Your task to perform on an android device: View the shopping cart on costco.com. Search for jbl charge 4 on costco.com, select the first entry, and add it to the cart. Image 0: 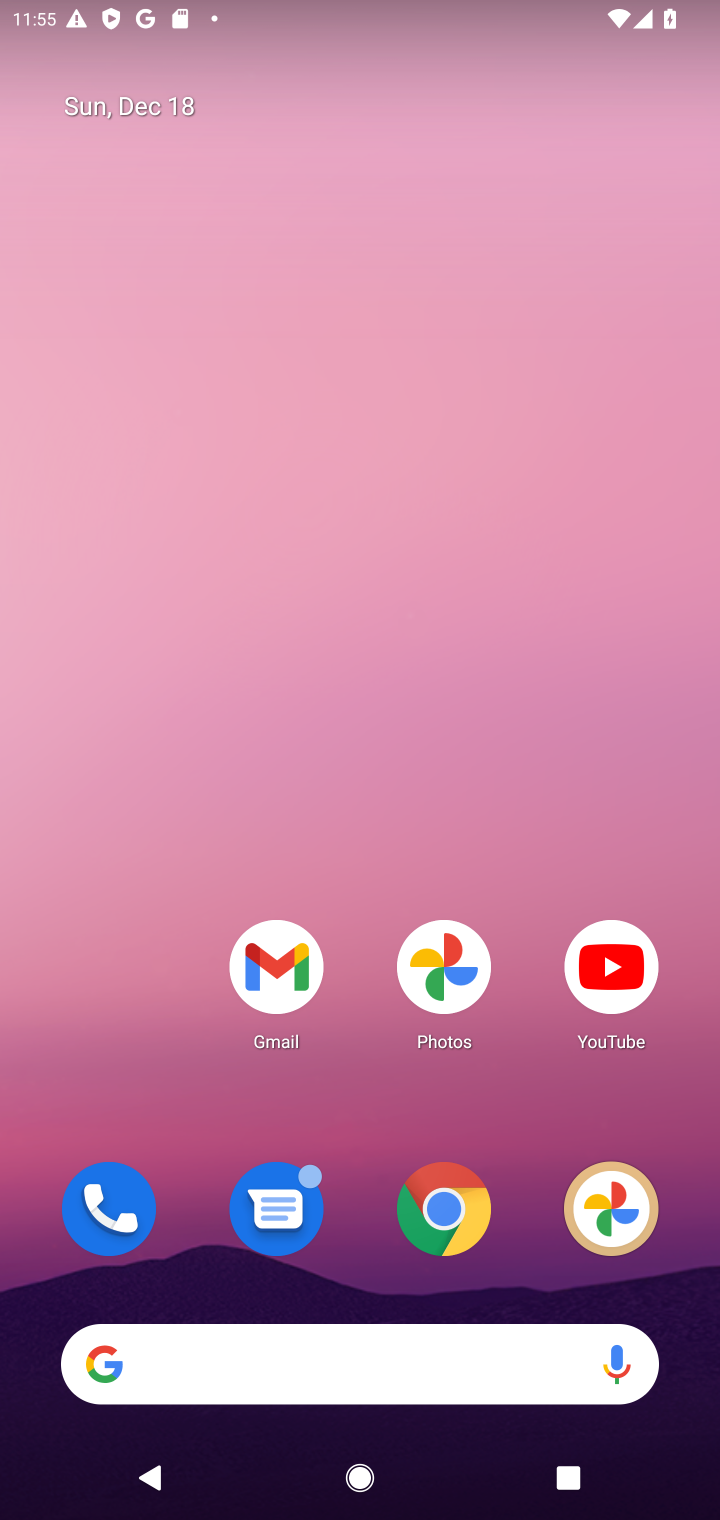
Step 0: click (432, 1193)
Your task to perform on an android device: View the shopping cart on costco.com. Search for jbl charge 4 on costco.com, select the first entry, and add it to the cart. Image 1: 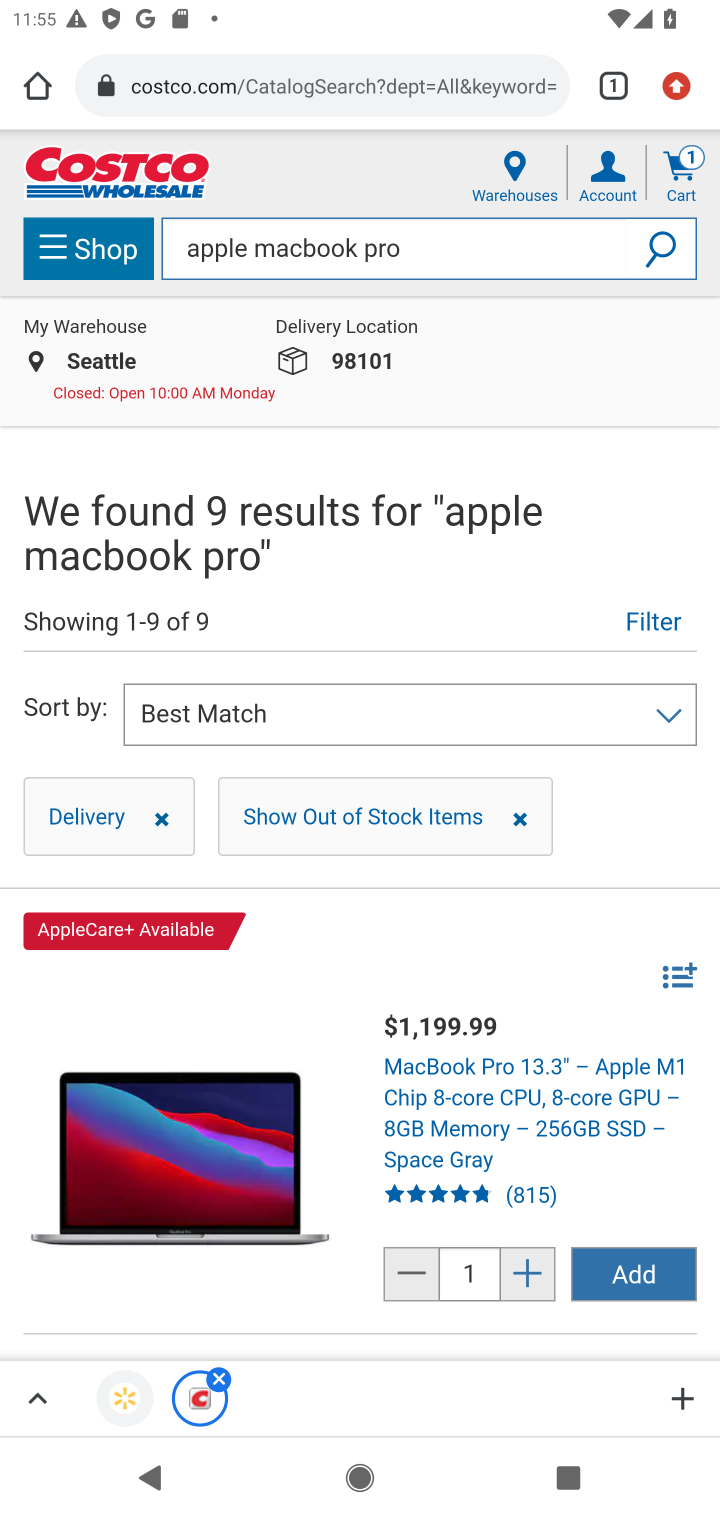
Step 1: click (164, 178)
Your task to perform on an android device: View the shopping cart on costco.com. Search for jbl charge 4 on costco.com, select the first entry, and add it to the cart. Image 2: 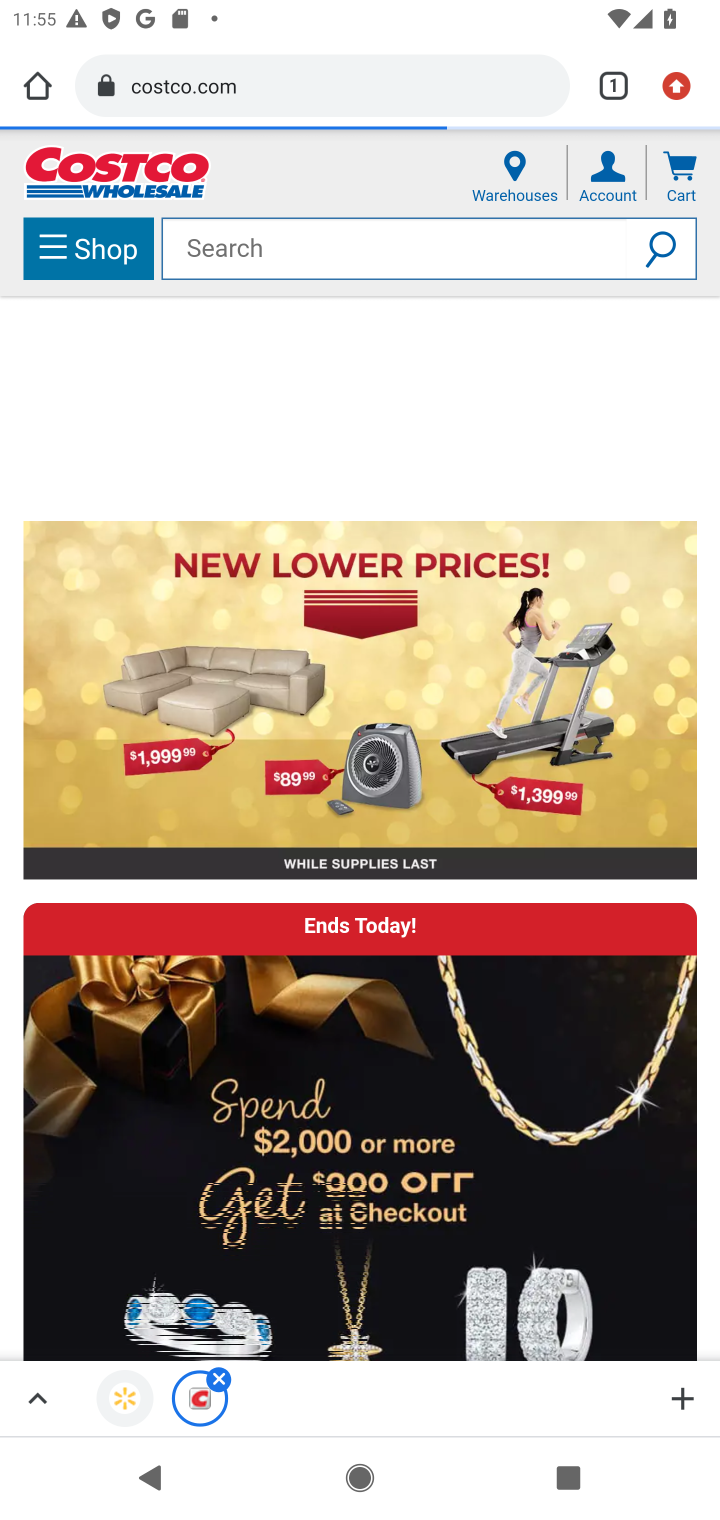
Step 2: click (456, 253)
Your task to perform on an android device: View the shopping cart on costco.com. Search for jbl charge 4 on costco.com, select the first entry, and add it to the cart. Image 3: 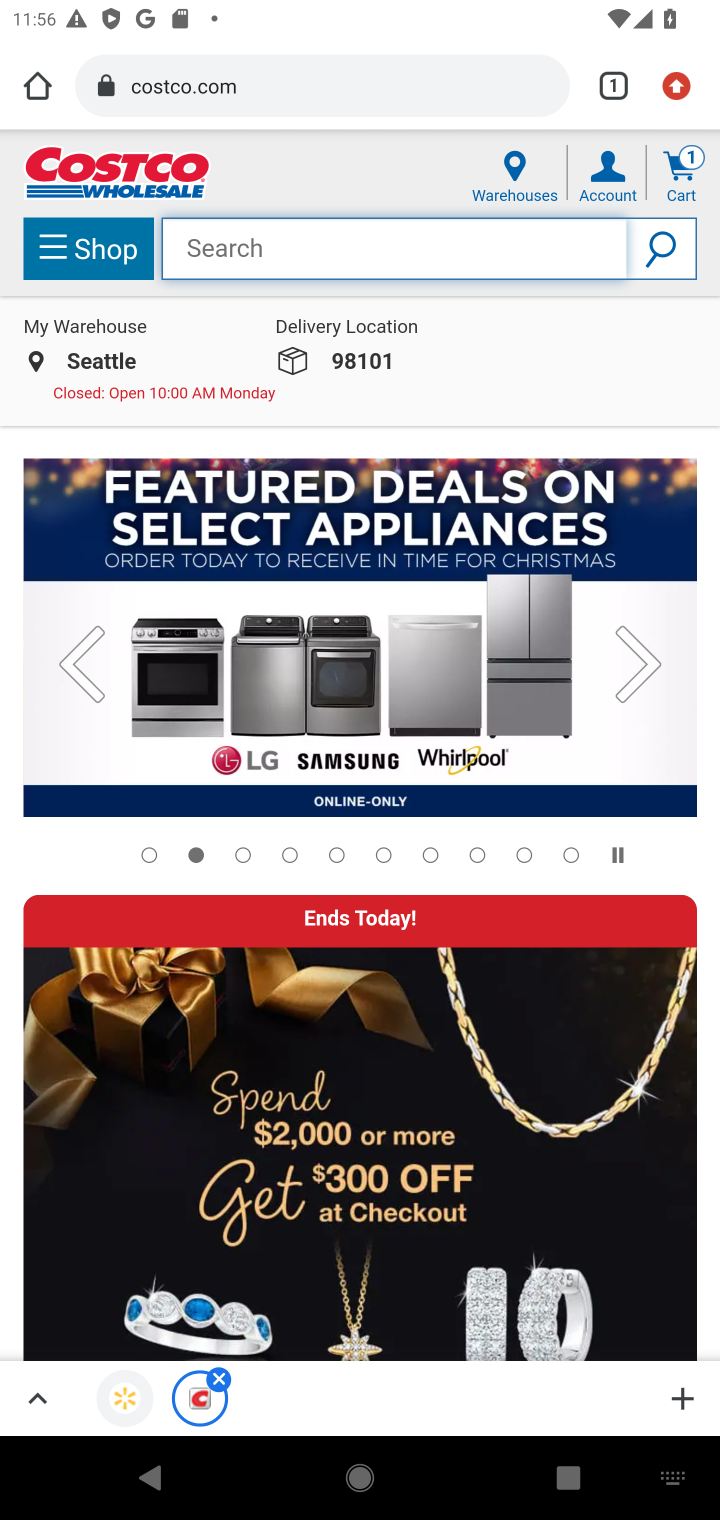
Step 3: type "JBL CHARGE 4"
Your task to perform on an android device: View the shopping cart on costco.com. Search for jbl charge 4 on costco.com, select the first entry, and add it to the cart. Image 4: 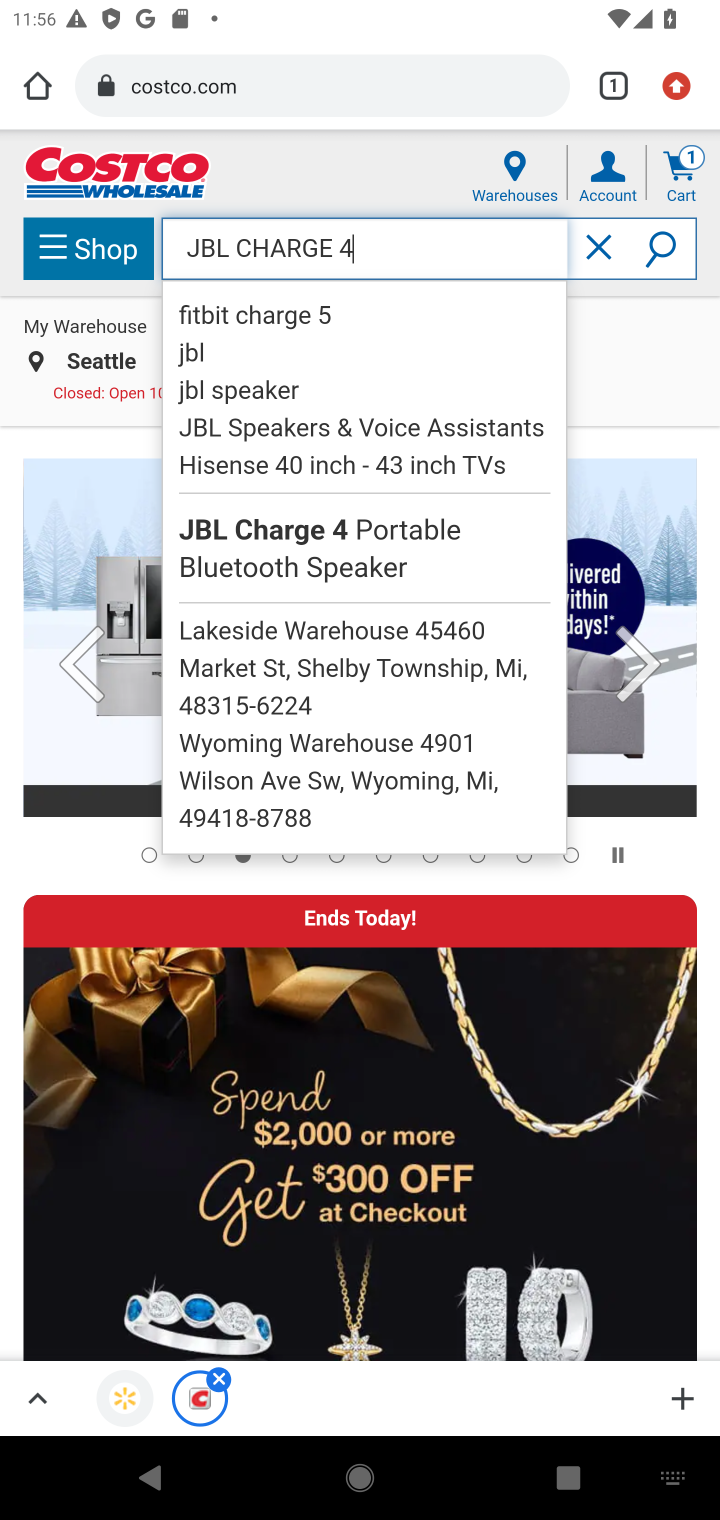
Step 4: click (674, 237)
Your task to perform on an android device: View the shopping cart on costco.com. Search for jbl charge 4 on costco.com, select the first entry, and add it to the cart. Image 5: 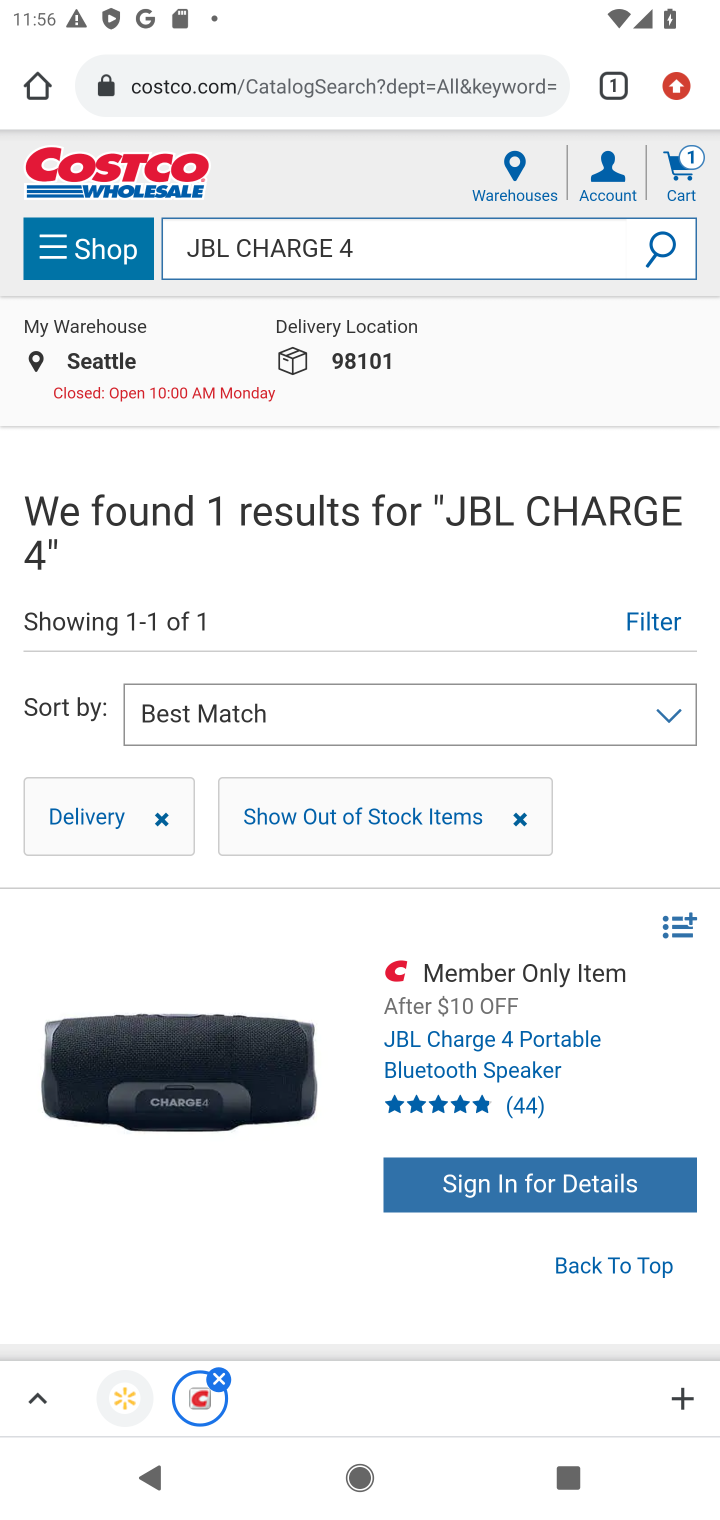
Step 5: click (228, 1098)
Your task to perform on an android device: View the shopping cart on costco.com. Search for jbl charge 4 on costco.com, select the first entry, and add it to the cart. Image 6: 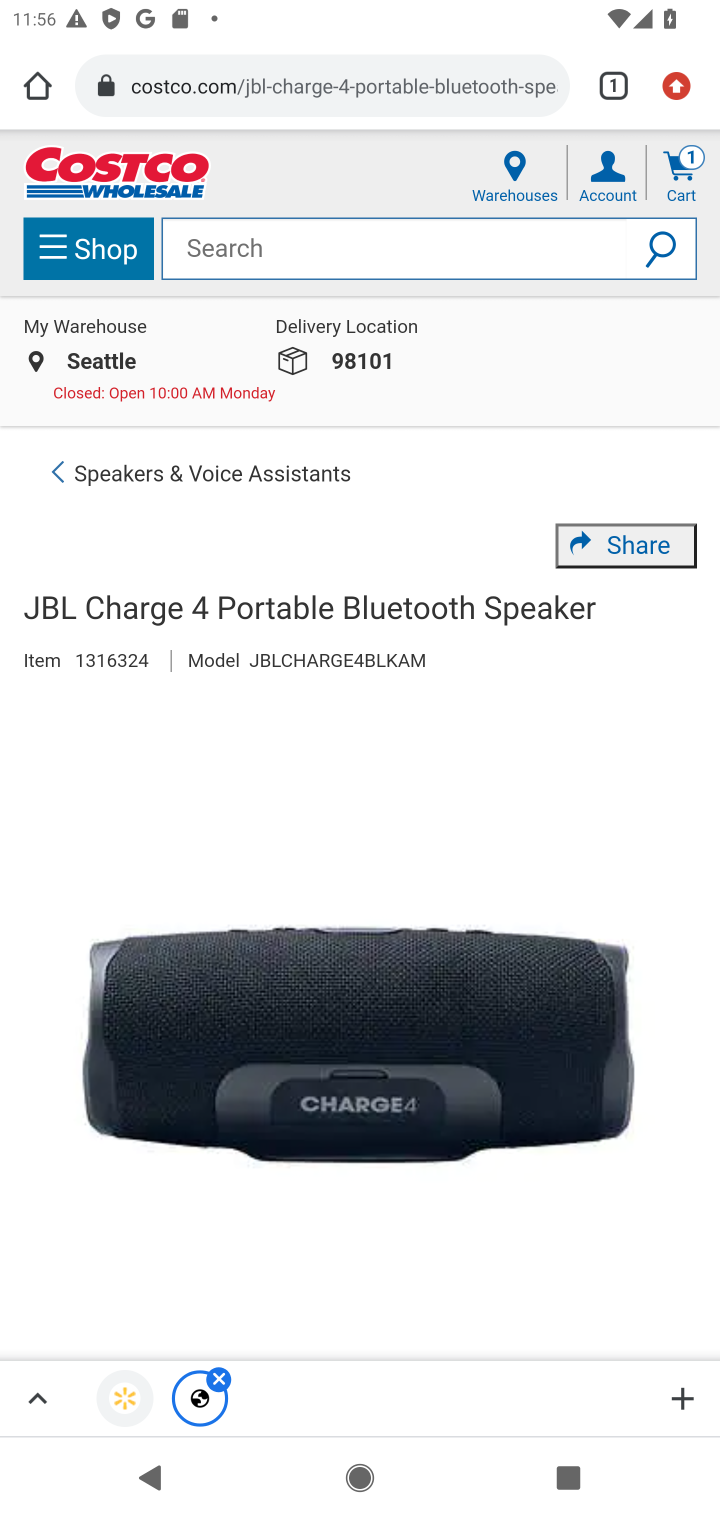
Step 6: drag from (447, 1055) to (431, 451)
Your task to perform on an android device: View the shopping cart on costco.com. Search for jbl charge 4 on costco.com, select the first entry, and add it to the cart. Image 7: 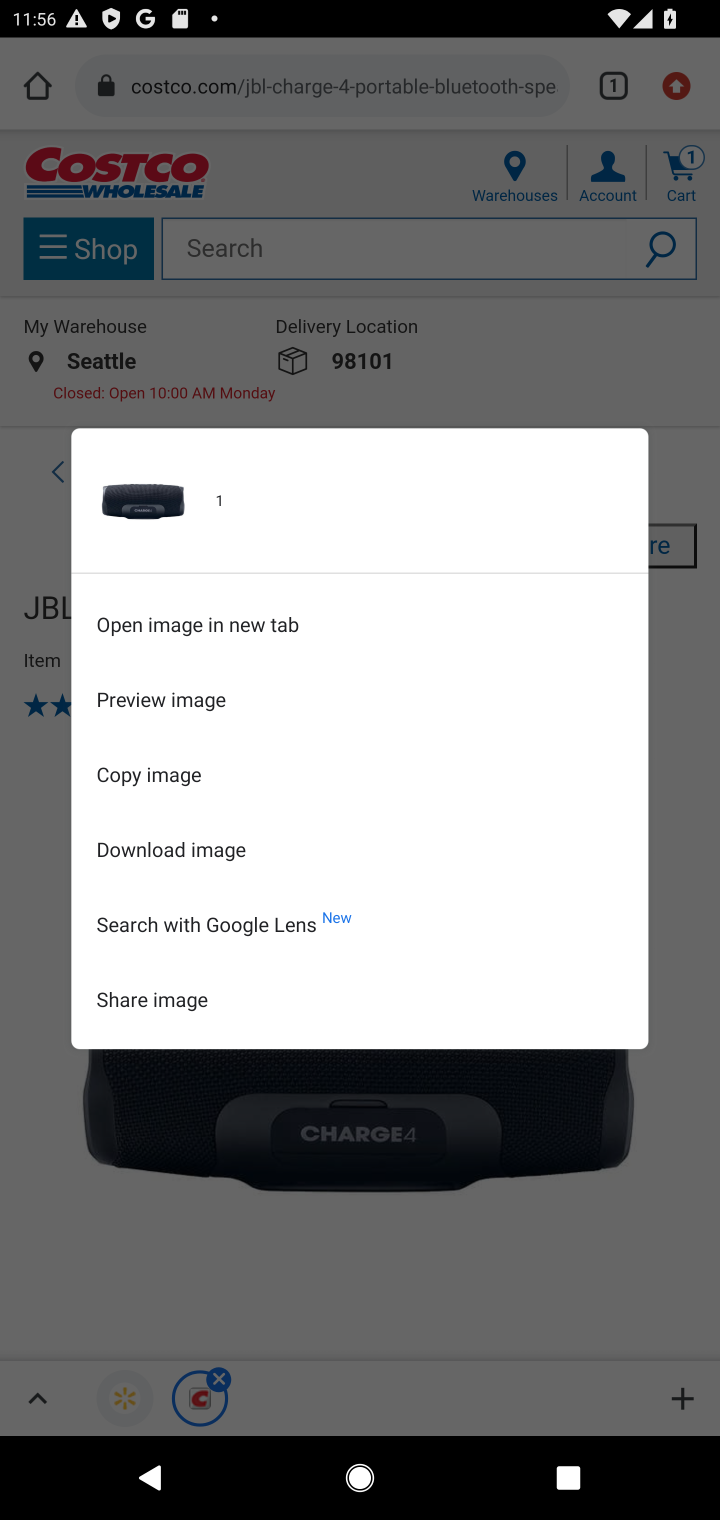
Step 7: click (697, 684)
Your task to perform on an android device: View the shopping cart on costco.com. Search for jbl charge 4 on costco.com, select the first entry, and add it to the cart. Image 8: 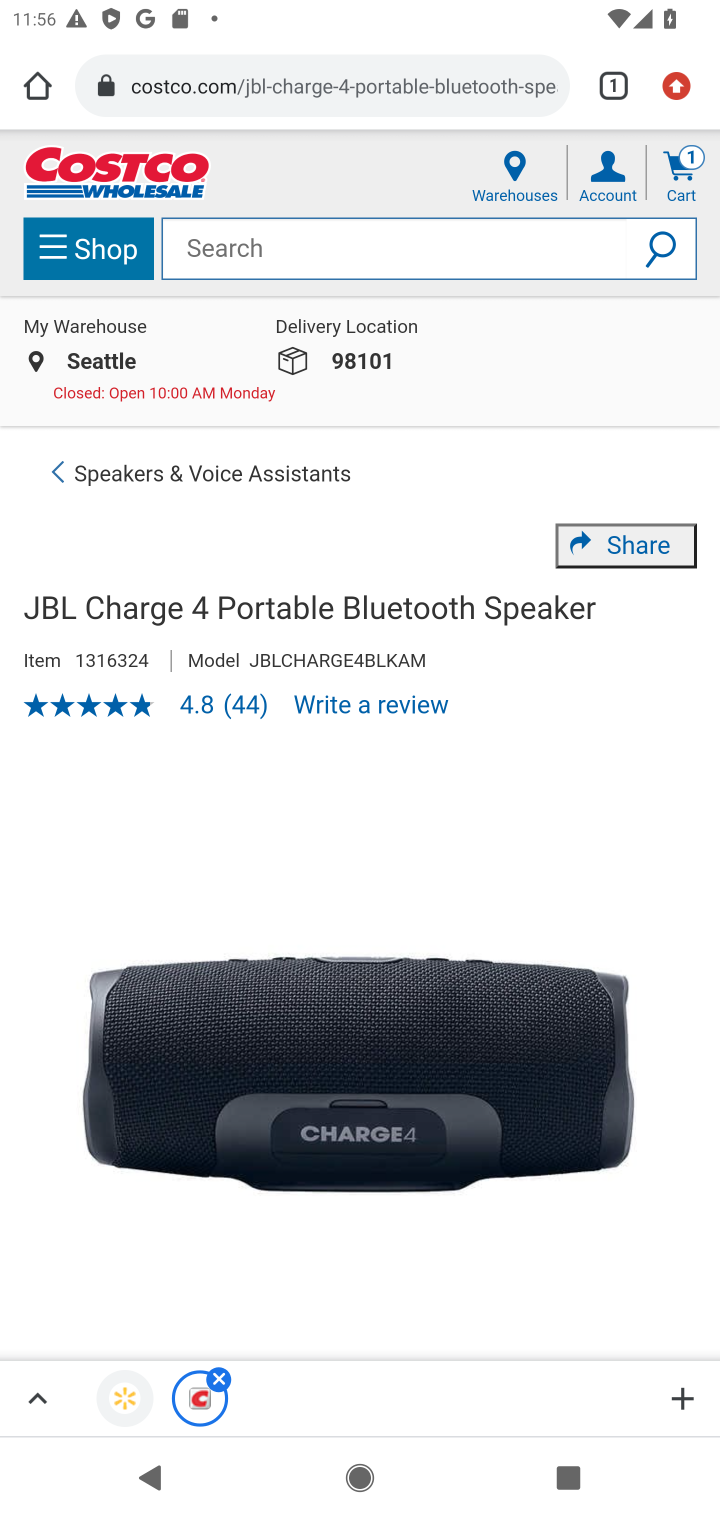
Step 8: task complete